Your task to perform on an android device: Open my contact list Image 0: 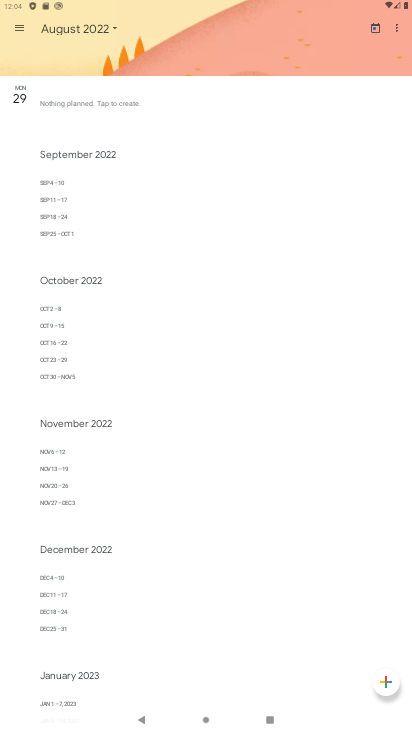
Step 0: press home button
Your task to perform on an android device: Open my contact list Image 1: 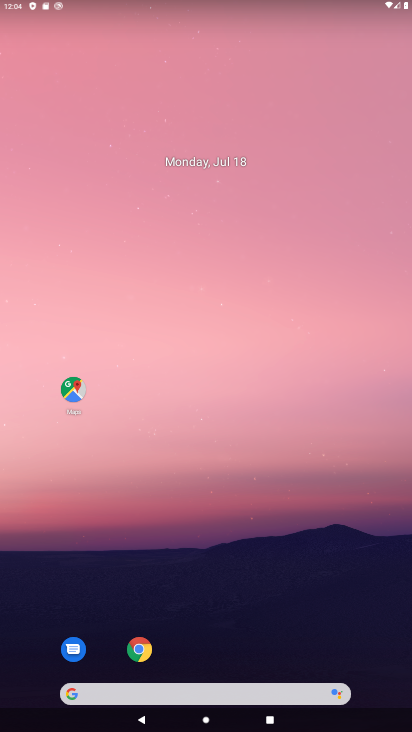
Step 1: drag from (31, 659) to (280, 5)
Your task to perform on an android device: Open my contact list Image 2: 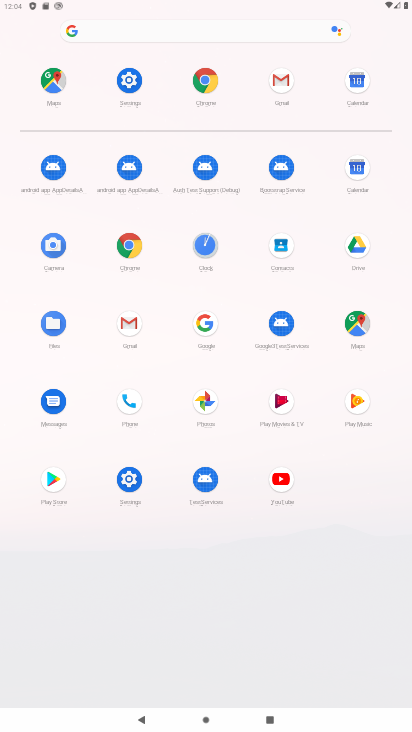
Step 2: click (129, 401)
Your task to perform on an android device: Open my contact list Image 3: 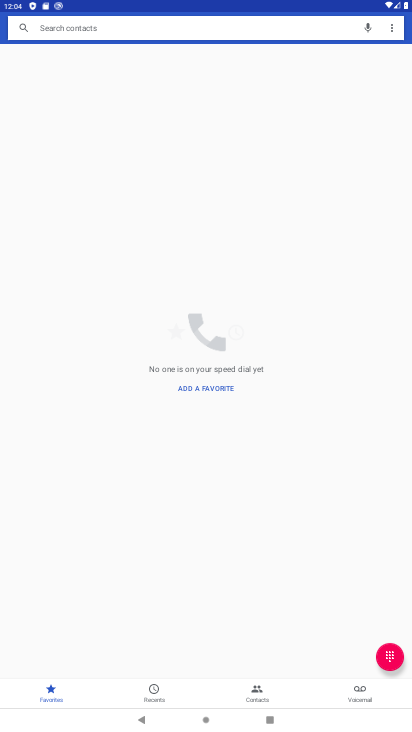
Step 3: click (268, 688)
Your task to perform on an android device: Open my contact list Image 4: 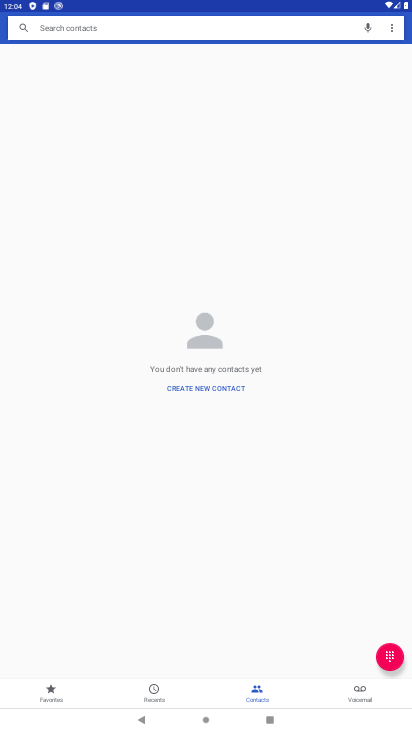
Step 4: task complete